Your task to perform on an android device: Do I have any events tomorrow? Image 0: 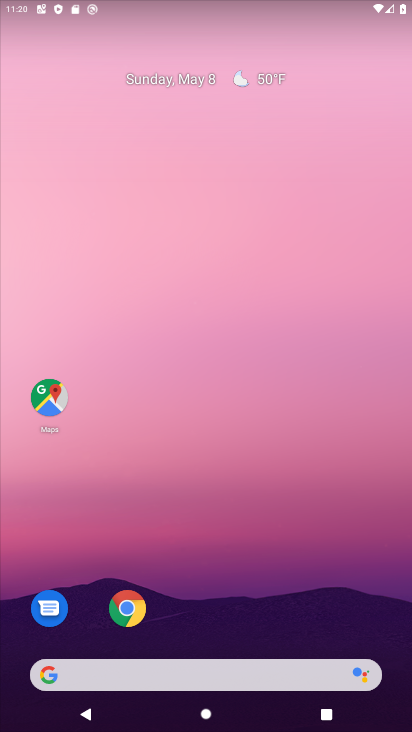
Step 0: drag from (226, 564) to (318, 0)
Your task to perform on an android device: Do I have any events tomorrow? Image 1: 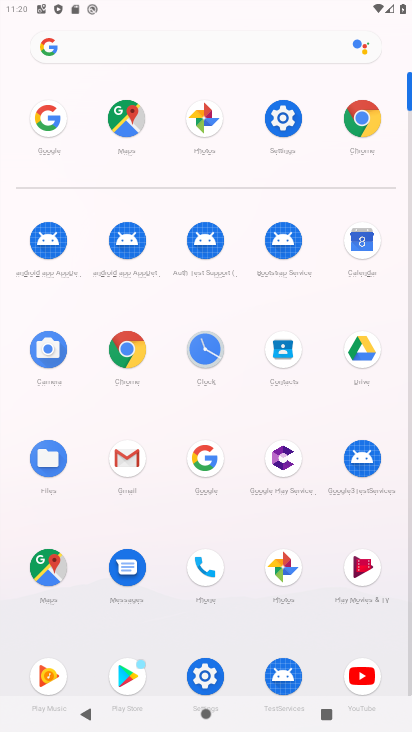
Step 1: click (363, 243)
Your task to perform on an android device: Do I have any events tomorrow? Image 2: 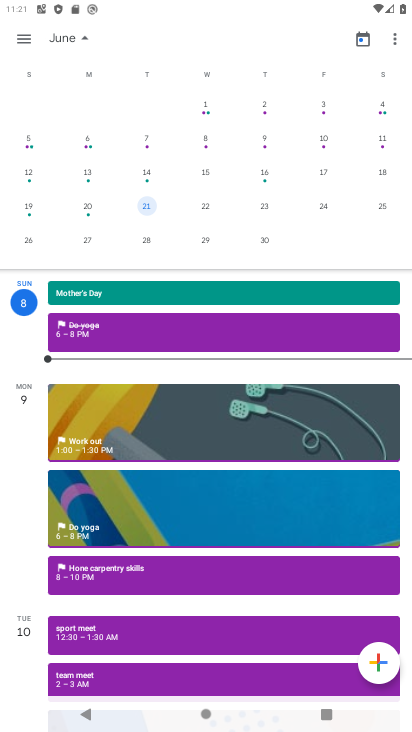
Step 2: click (211, 209)
Your task to perform on an android device: Do I have any events tomorrow? Image 3: 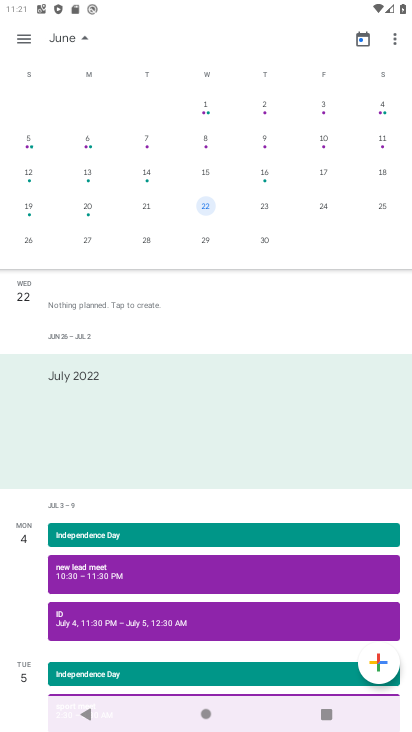
Step 3: task complete